Your task to perform on an android device: turn on wifi Image 0: 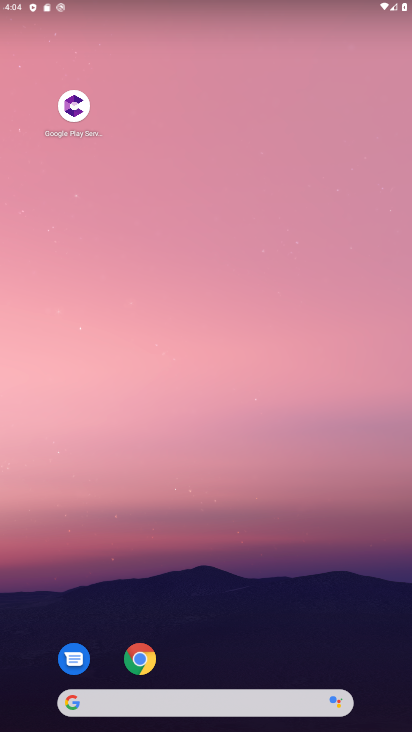
Step 0: drag from (202, 665) to (276, 277)
Your task to perform on an android device: turn on wifi Image 1: 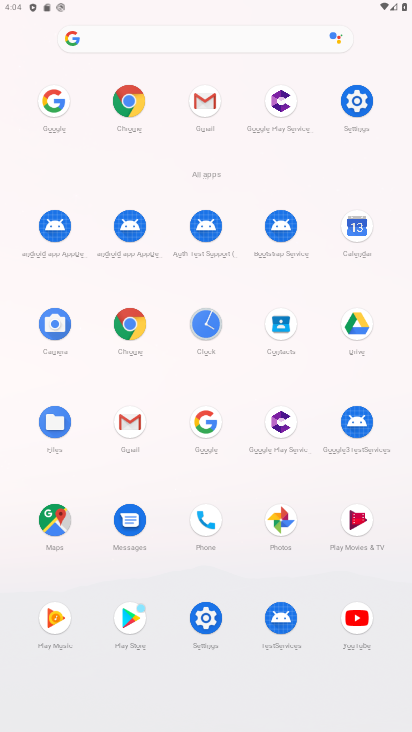
Step 1: click (199, 622)
Your task to perform on an android device: turn on wifi Image 2: 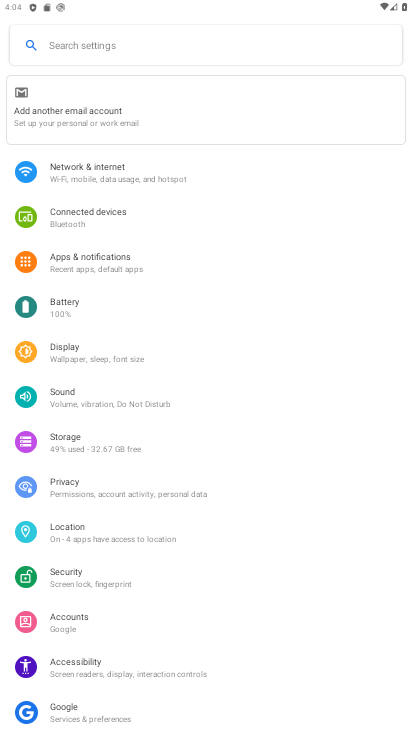
Step 2: click (142, 182)
Your task to perform on an android device: turn on wifi Image 3: 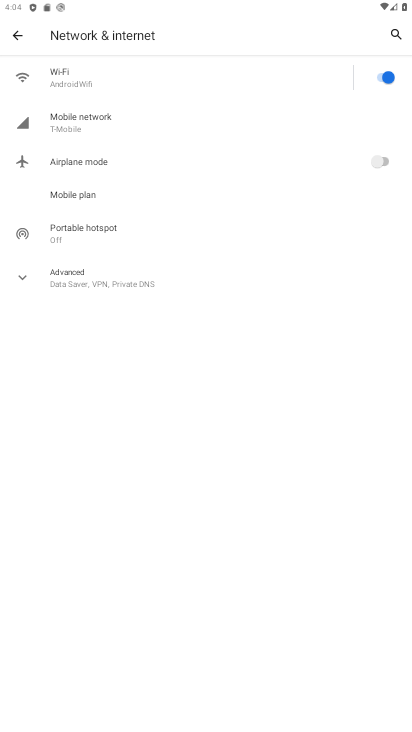
Step 3: task complete